Your task to perform on an android device: Add sony triple a to the cart on costco Image 0: 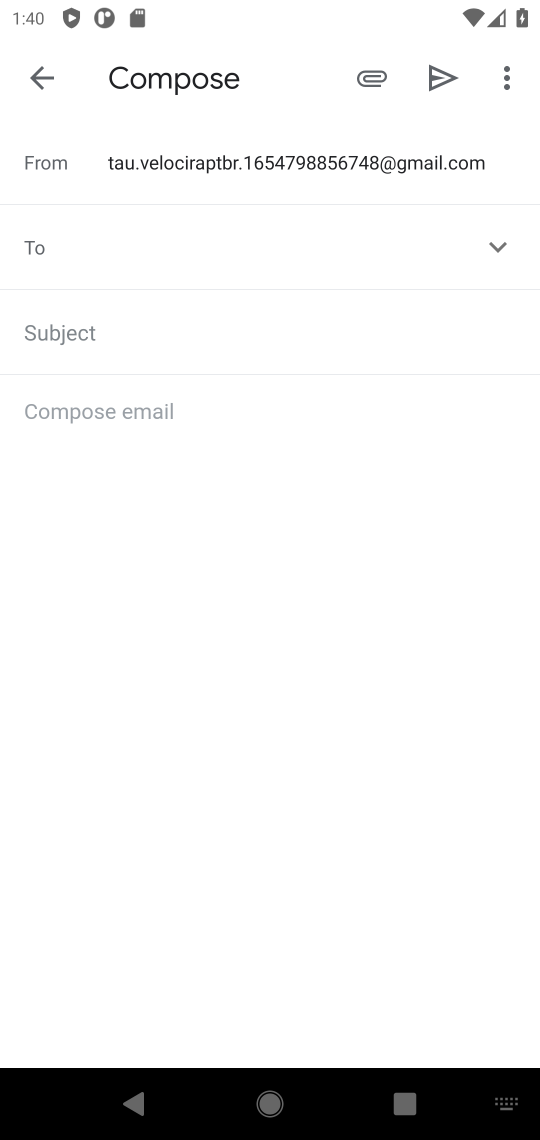
Step 0: press home button
Your task to perform on an android device: Add sony triple a to the cart on costco Image 1: 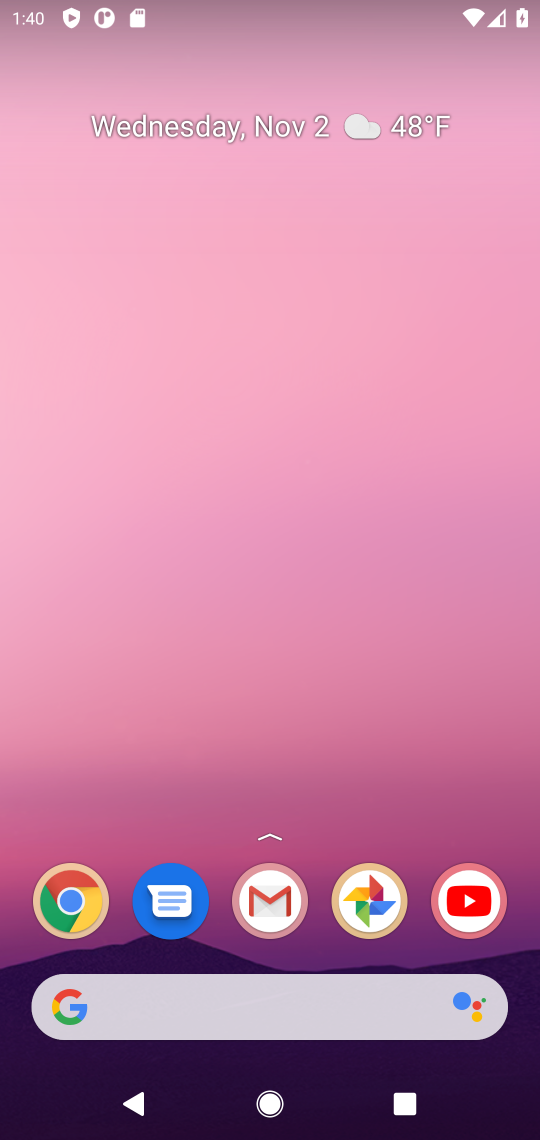
Step 1: drag from (306, 617) to (354, 0)
Your task to perform on an android device: Add sony triple a to the cart on costco Image 2: 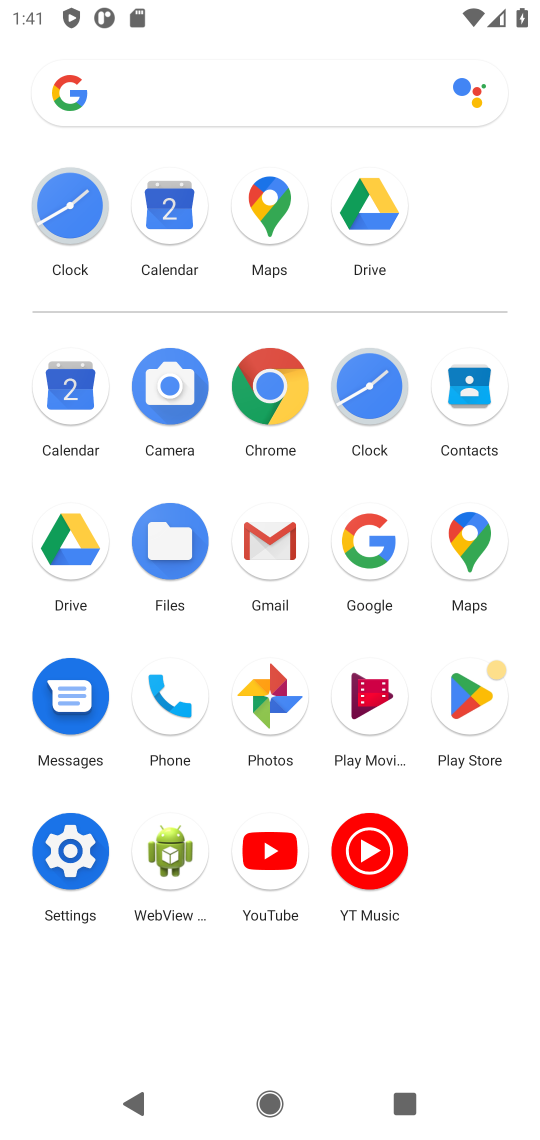
Step 2: click (269, 381)
Your task to perform on an android device: Add sony triple a to the cart on costco Image 3: 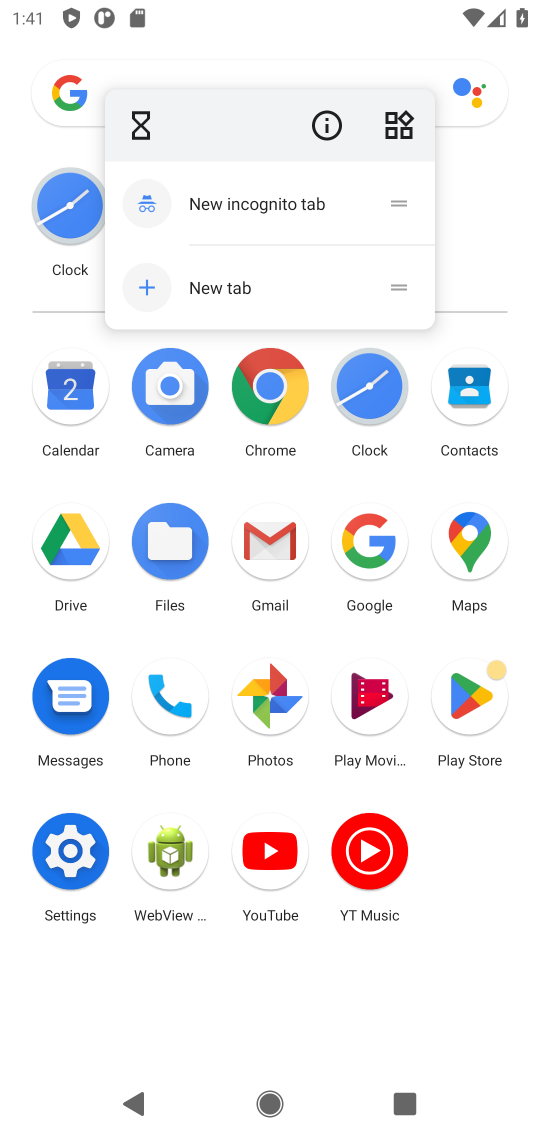
Step 3: click (268, 390)
Your task to perform on an android device: Add sony triple a to the cart on costco Image 4: 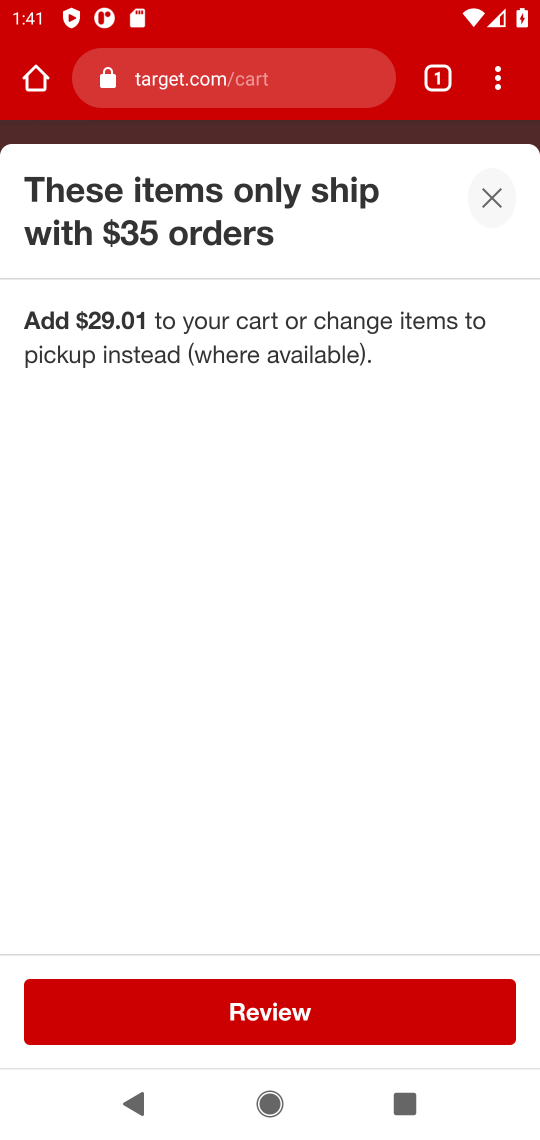
Step 4: click (282, 89)
Your task to perform on an android device: Add sony triple a to the cart on costco Image 5: 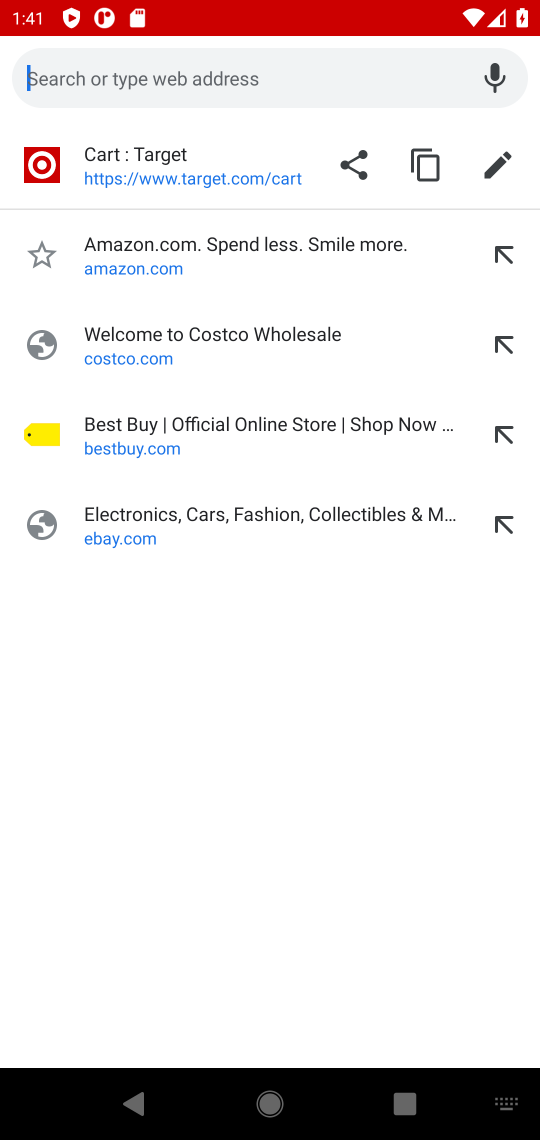
Step 5: type "costco.com"
Your task to perform on an android device: Add sony triple a to the cart on costco Image 6: 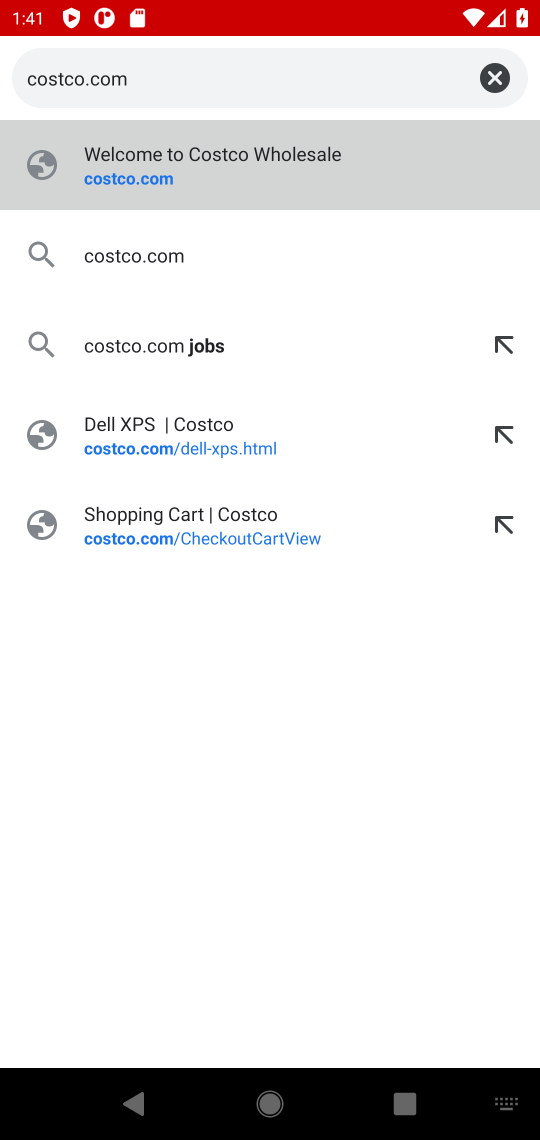
Step 6: press enter
Your task to perform on an android device: Add sony triple a to the cart on costco Image 7: 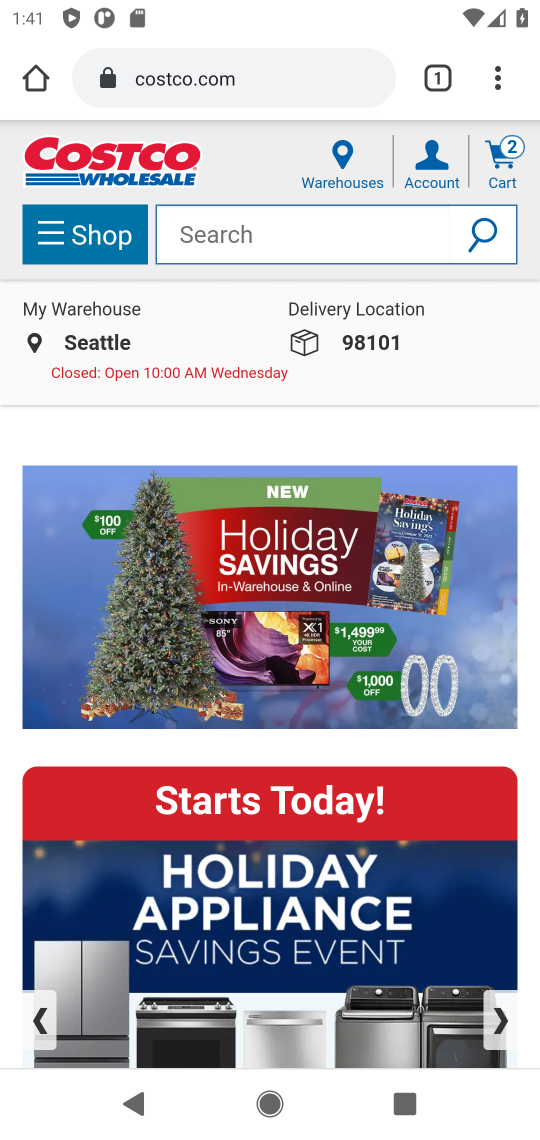
Step 7: click (322, 232)
Your task to perform on an android device: Add sony triple a to the cart on costco Image 8: 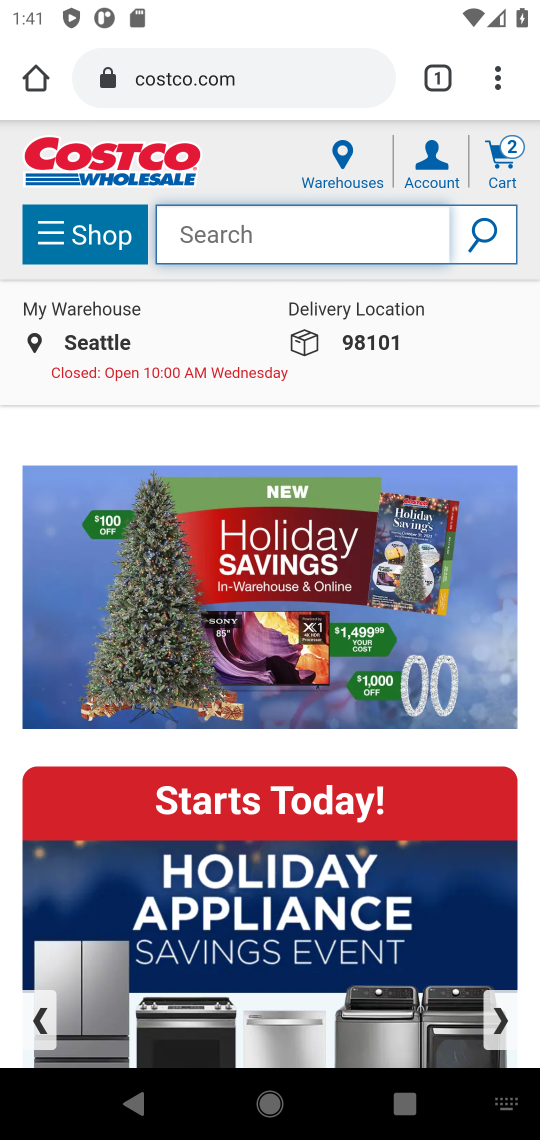
Step 8: type "sony triple a"
Your task to perform on an android device: Add sony triple a to the cart on costco Image 9: 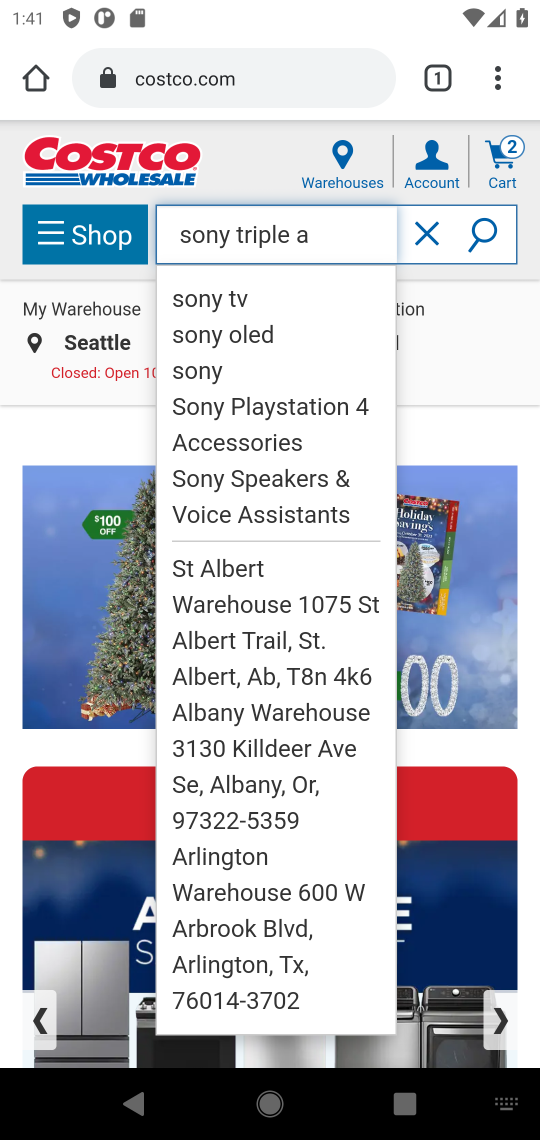
Step 9: press enter
Your task to perform on an android device: Add sony triple a to the cart on costco Image 10: 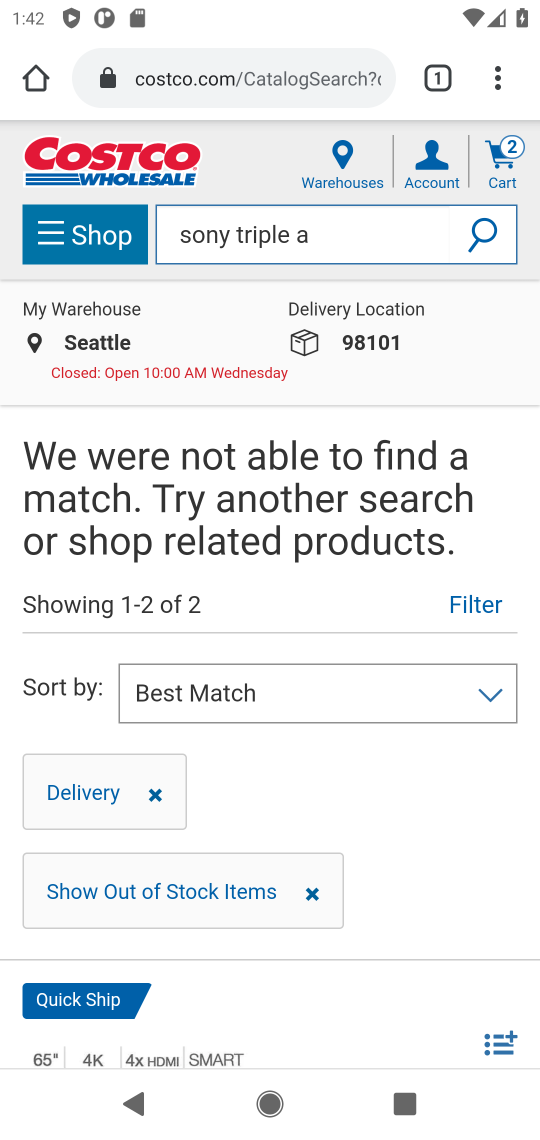
Step 10: task complete